Your task to perform on an android device: Toggle the flashlight Image 0: 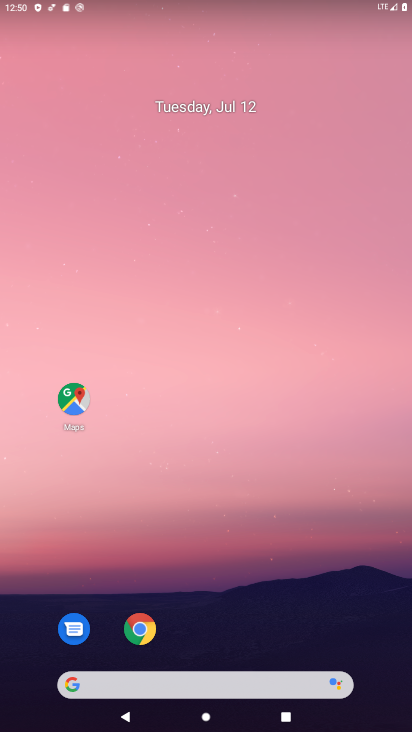
Step 0: drag from (263, 69) to (255, 572)
Your task to perform on an android device: Toggle the flashlight Image 1: 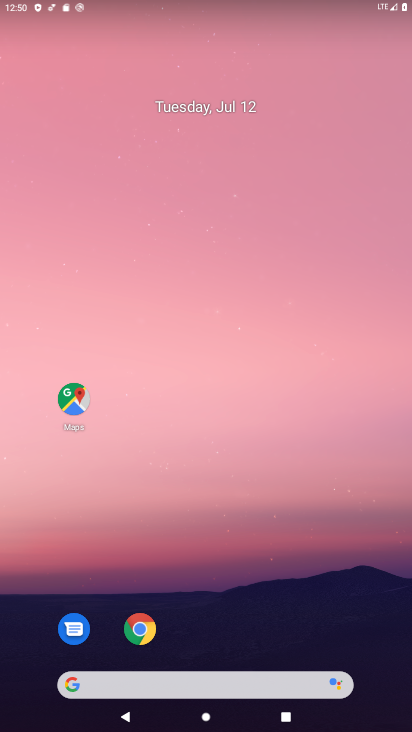
Step 1: click (131, 384)
Your task to perform on an android device: Toggle the flashlight Image 2: 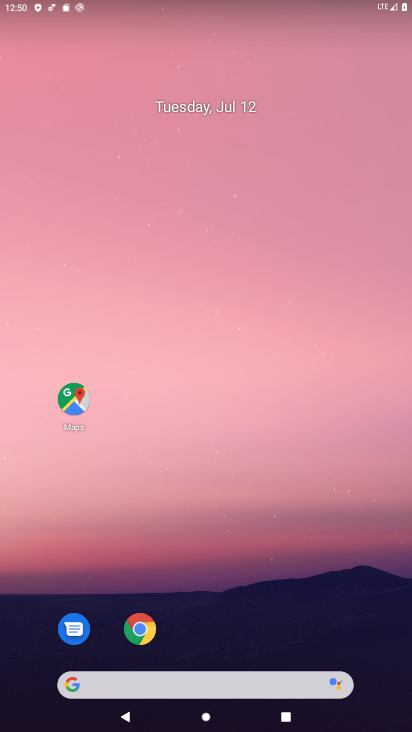
Step 2: task complete